Your task to perform on an android device: Go to Yahoo.com Image 0: 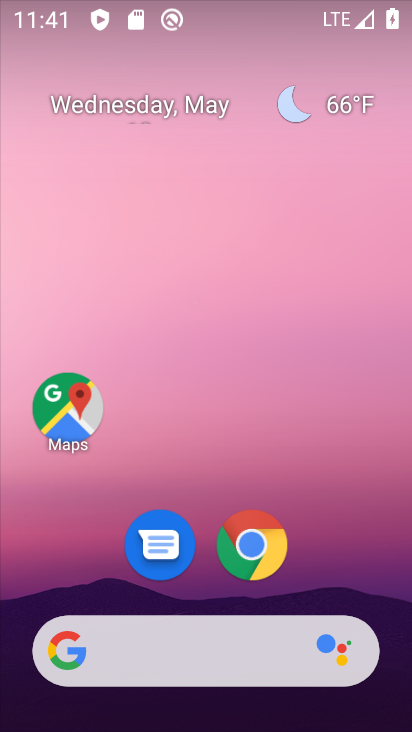
Step 0: click (226, 653)
Your task to perform on an android device: Go to Yahoo.com Image 1: 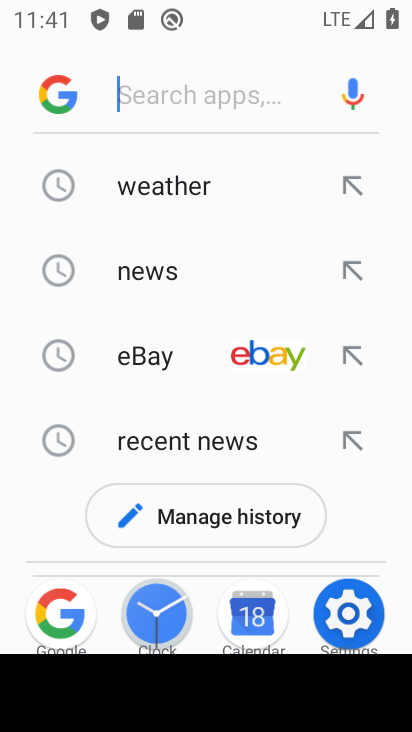
Step 1: type "yahoo.com"
Your task to perform on an android device: Go to Yahoo.com Image 2: 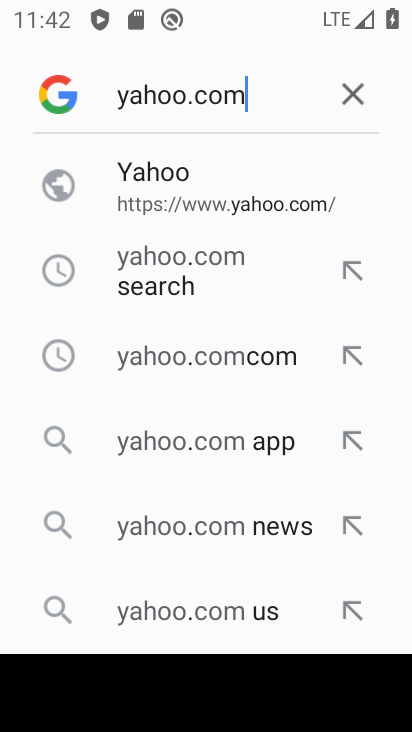
Step 2: click (240, 177)
Your task to perform on an android device: Go to Yahoo.com Image 3: 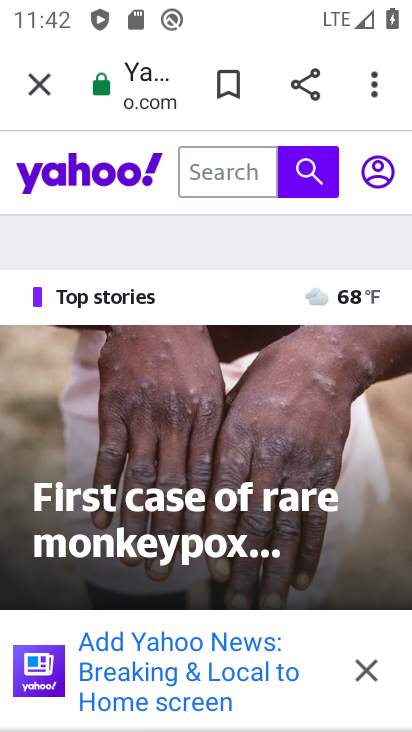
Step 3: task complete